Your task to perform on an android device: turn on airplane mode Image 0: 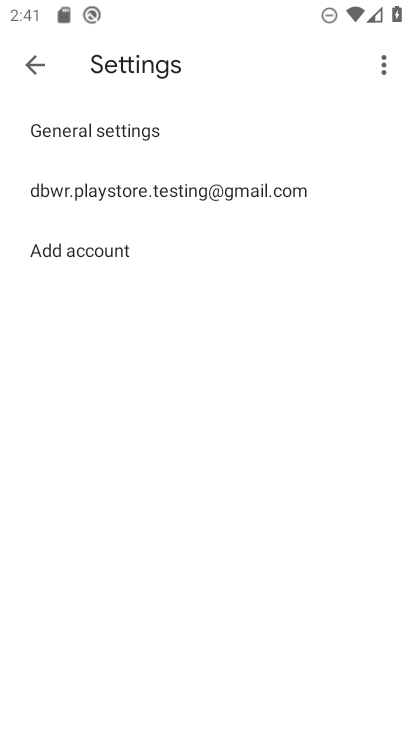
Step 0: press home button
Your task to perform on an android device: turn on airplane mode Image 1: 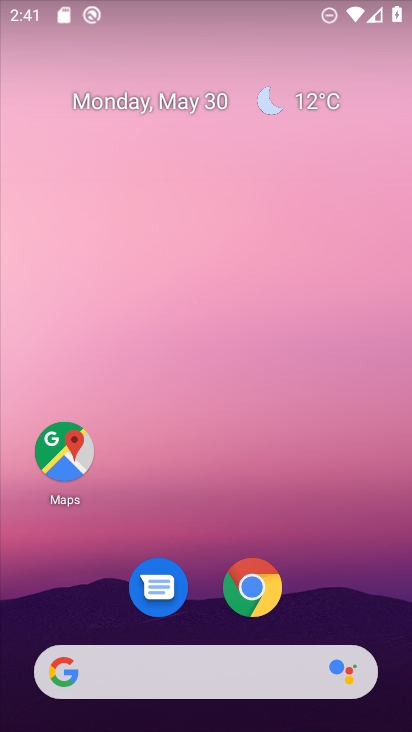
Step 1: drag from (208, 598) to (248, 149)
Your task to perform on an android device: turn on airplane mode Image 2: 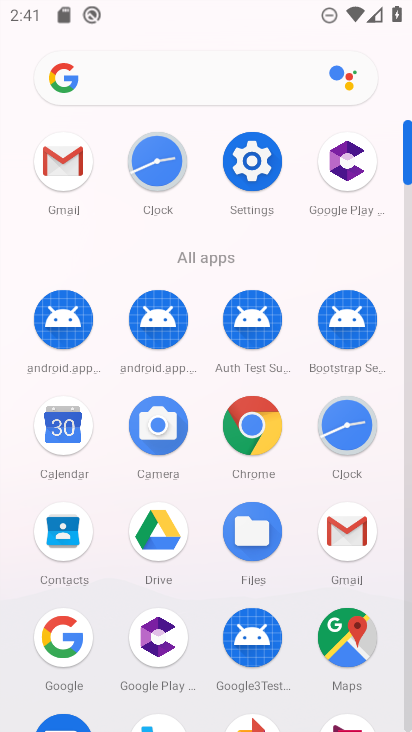
Step 2: click (243, 169)
Your task to perform on an android device: turn on airplane mode Image 3: 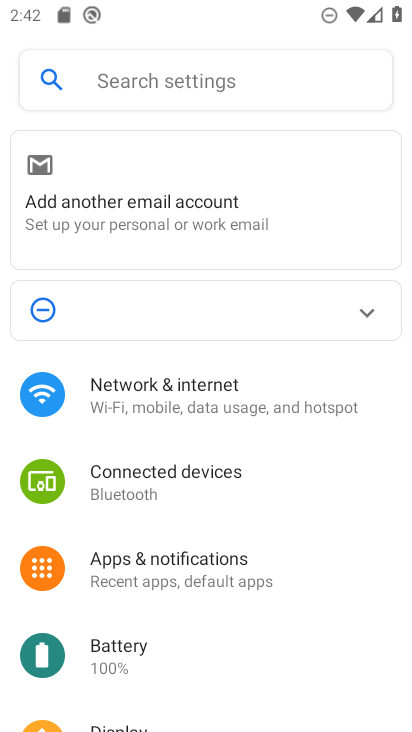
Step 3: click (211, 412)
Your task to perform on an android device: turn on airplane mode Image 4: 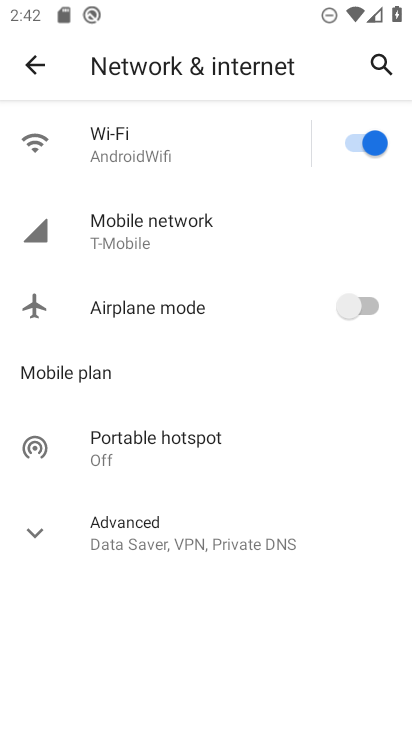
Step 4: click (371, 301)
Your task to perform on an android device: turn on airplane mode Image 5: 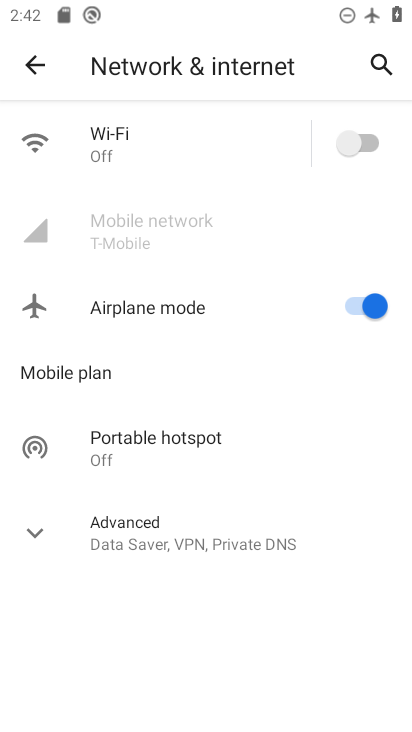
Step 5: task complete